Your task to perform on an android device: Turn on the flashlight Image 0: 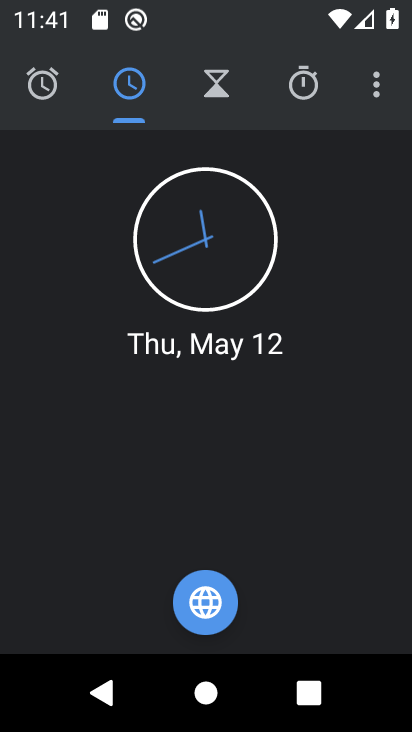
Step 0: press home button
Your task to perform on an android device: Turn on the flashlight Image 1: 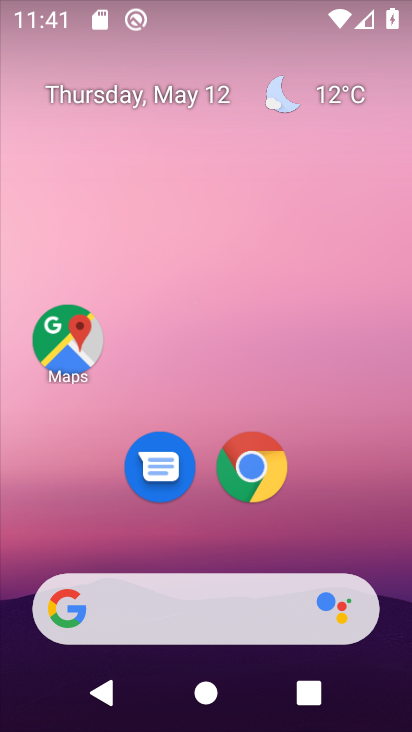
Step 1: task complete